Your task to perform on an android device: Add "razer blade" to the cart on newegg, then select checkout. Image 0: 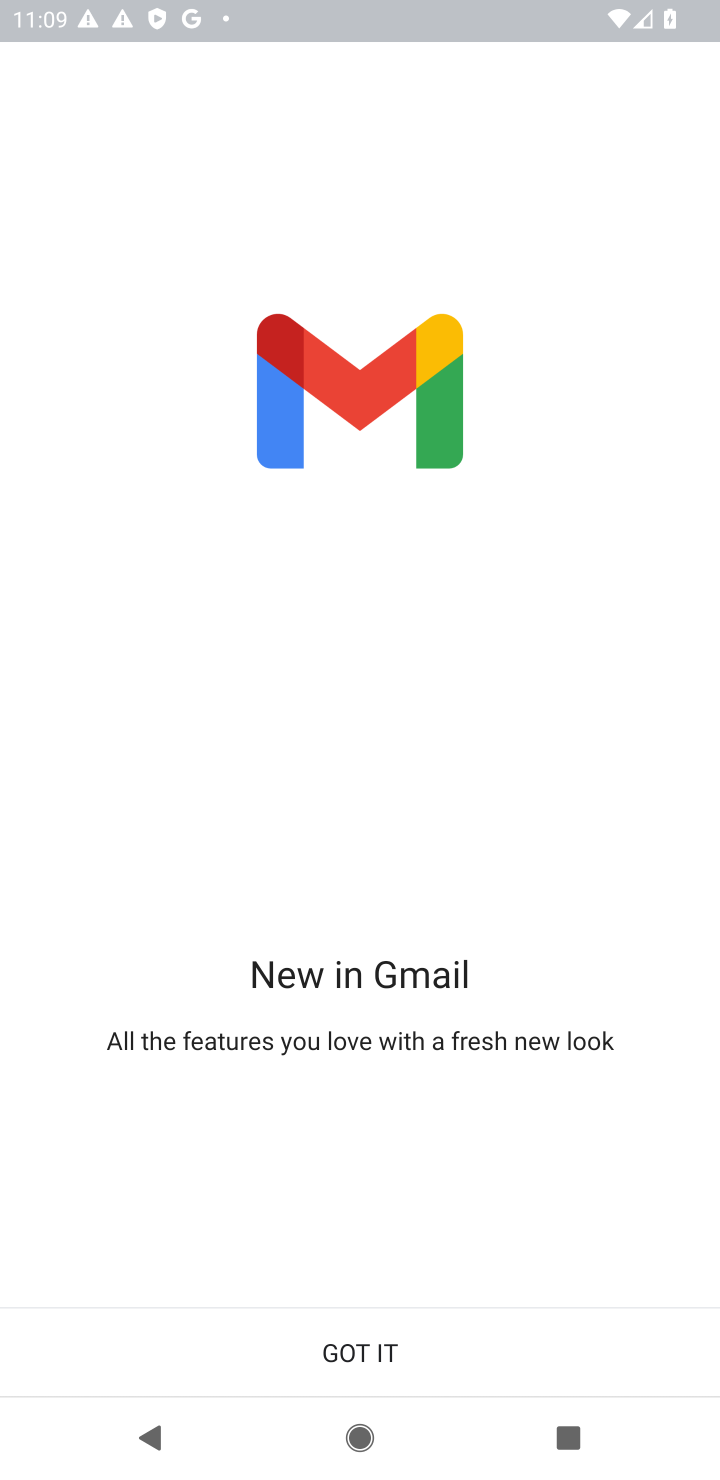
Step 0: press home button
Your task to perform on an android device: Add "razer blade" to the cart on newegg, then select checkout. Image 1: 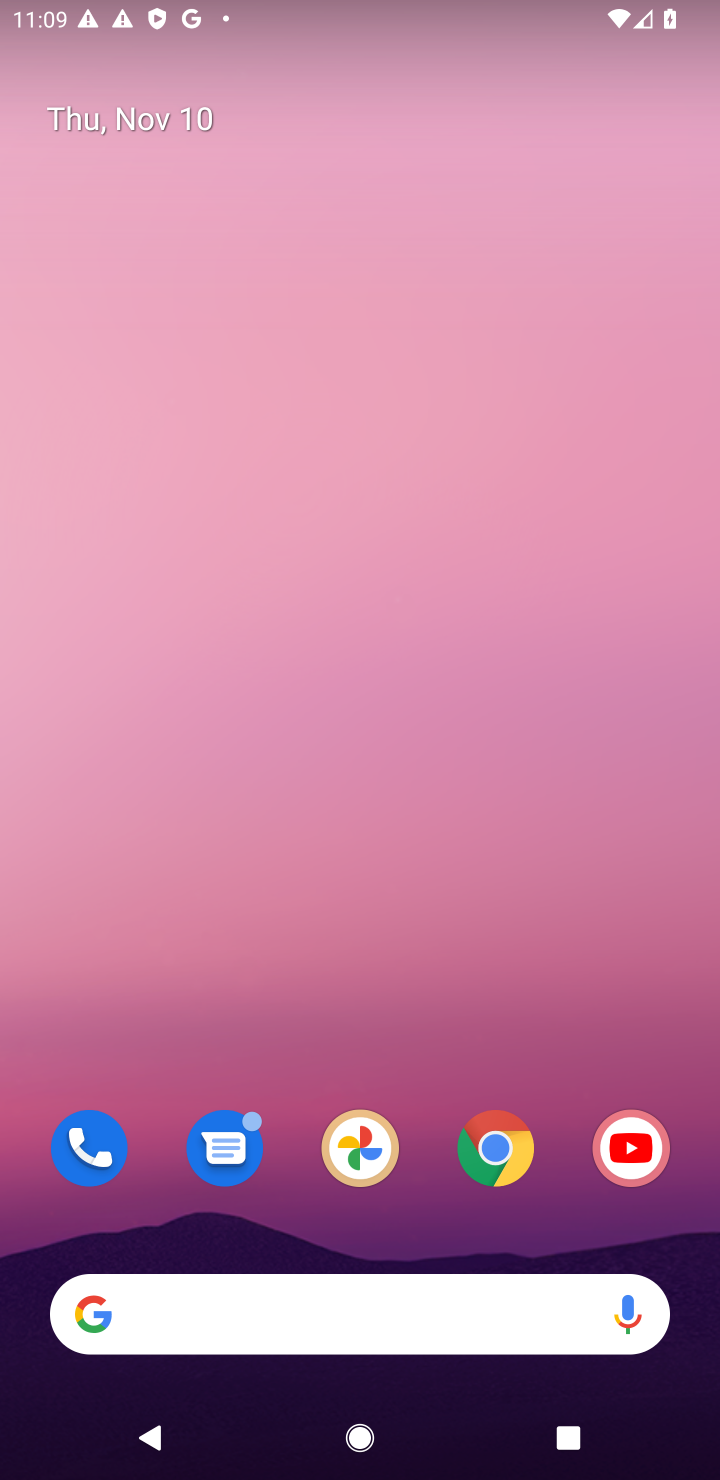
Step 1: click (495, 1112)
Your task to perform on an android device: Add "razer blade" to the cart on newegg, then select checkout. Image 2: 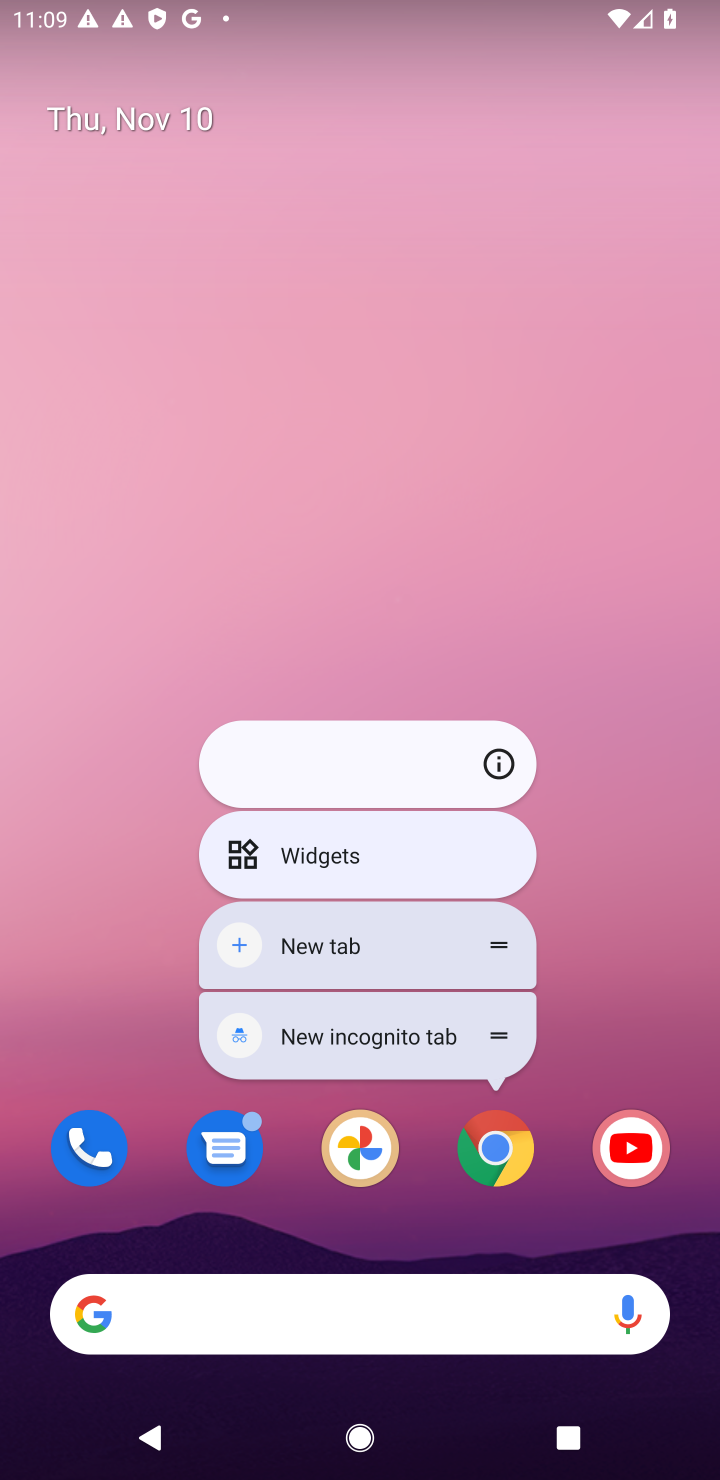
Step 2: click (496, 1149)
Your task to perform on an android device: Add "razer blade" to the cart on newegg, then select checkout. Image 3: 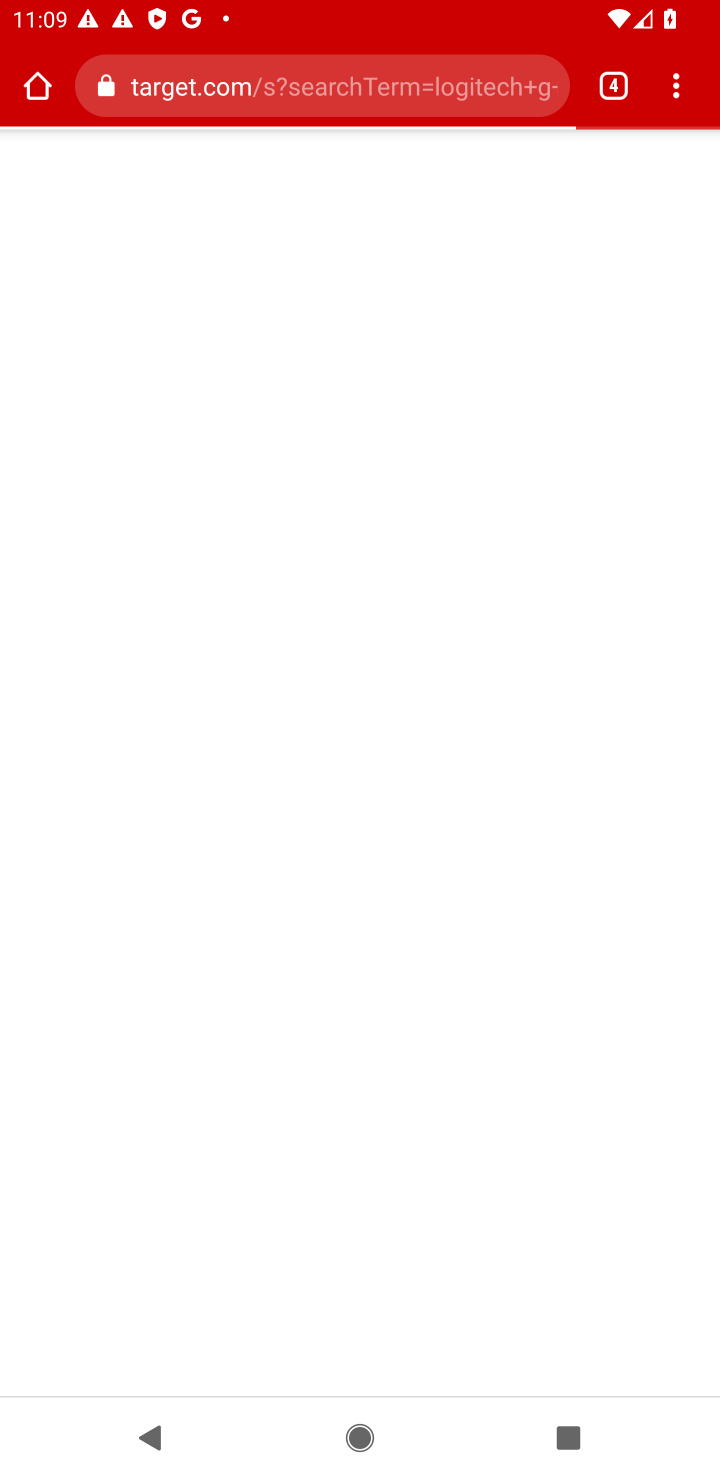
Step 3: click (619, 93)
Your task to perform on an android device: Add "razer blade" to the cart on newegg, then select checkout. Image 4: 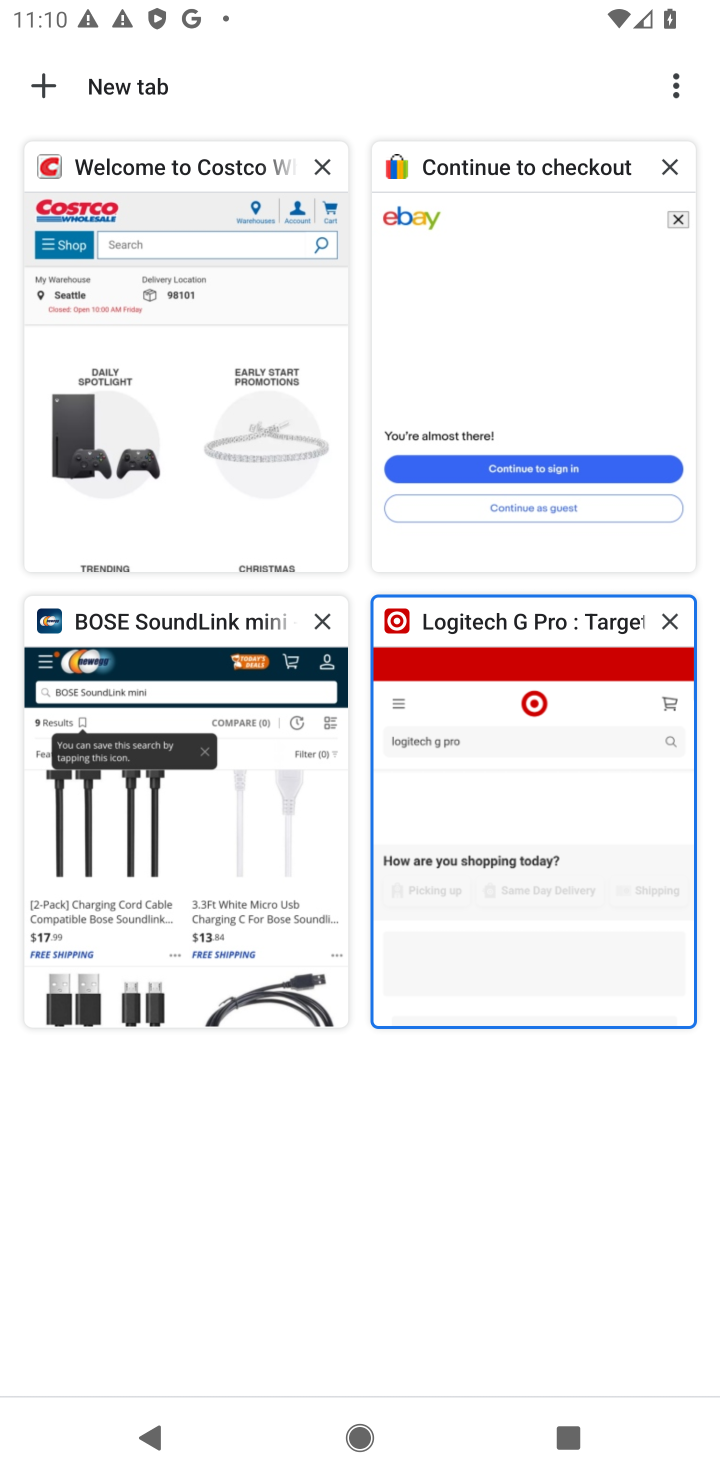
Step 4: click (110, 821)
Your task to perform on an android device: Add "razer blade" to the cart on newegg, then select checkout. Image 5: 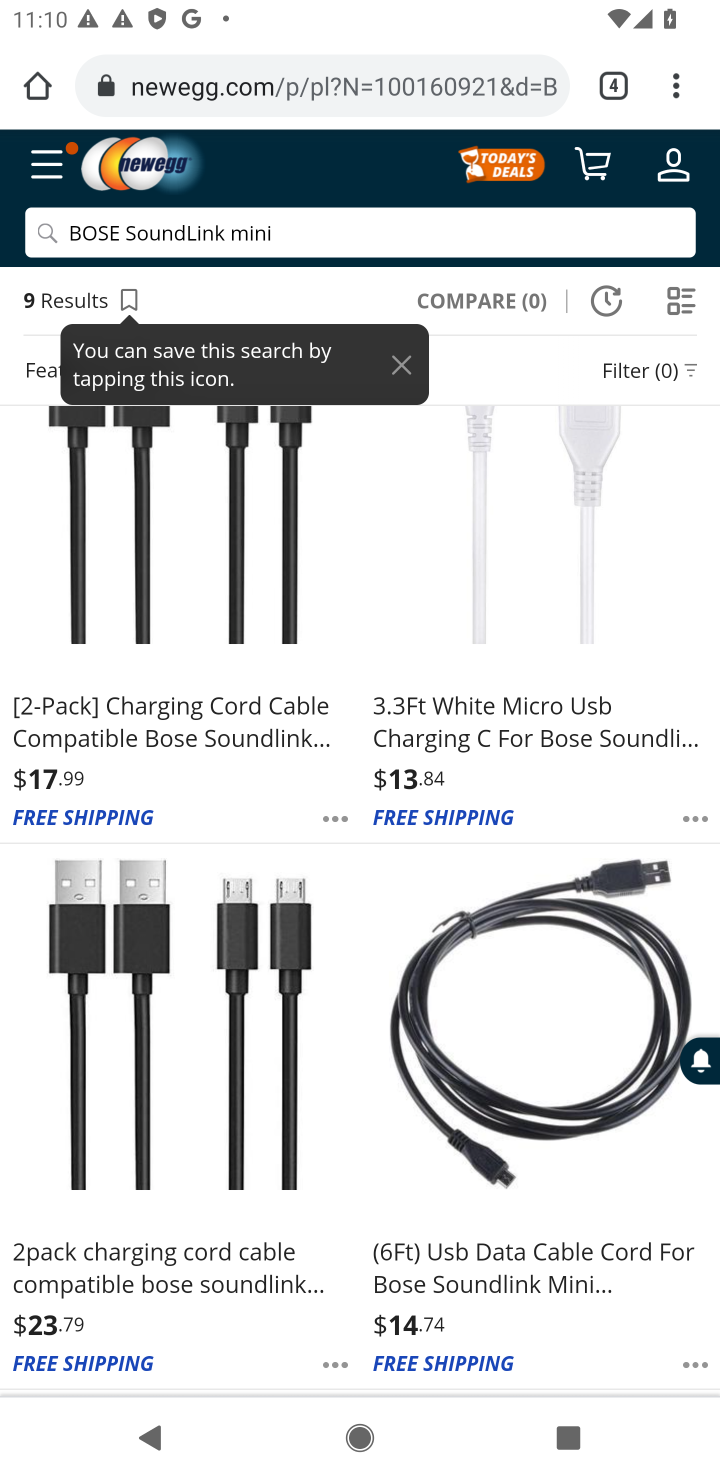
Step 5: click (298, 236)
Your task to perform on an android device: Add "razer blade" to the cart on newegg, then select checkout. Image 6: 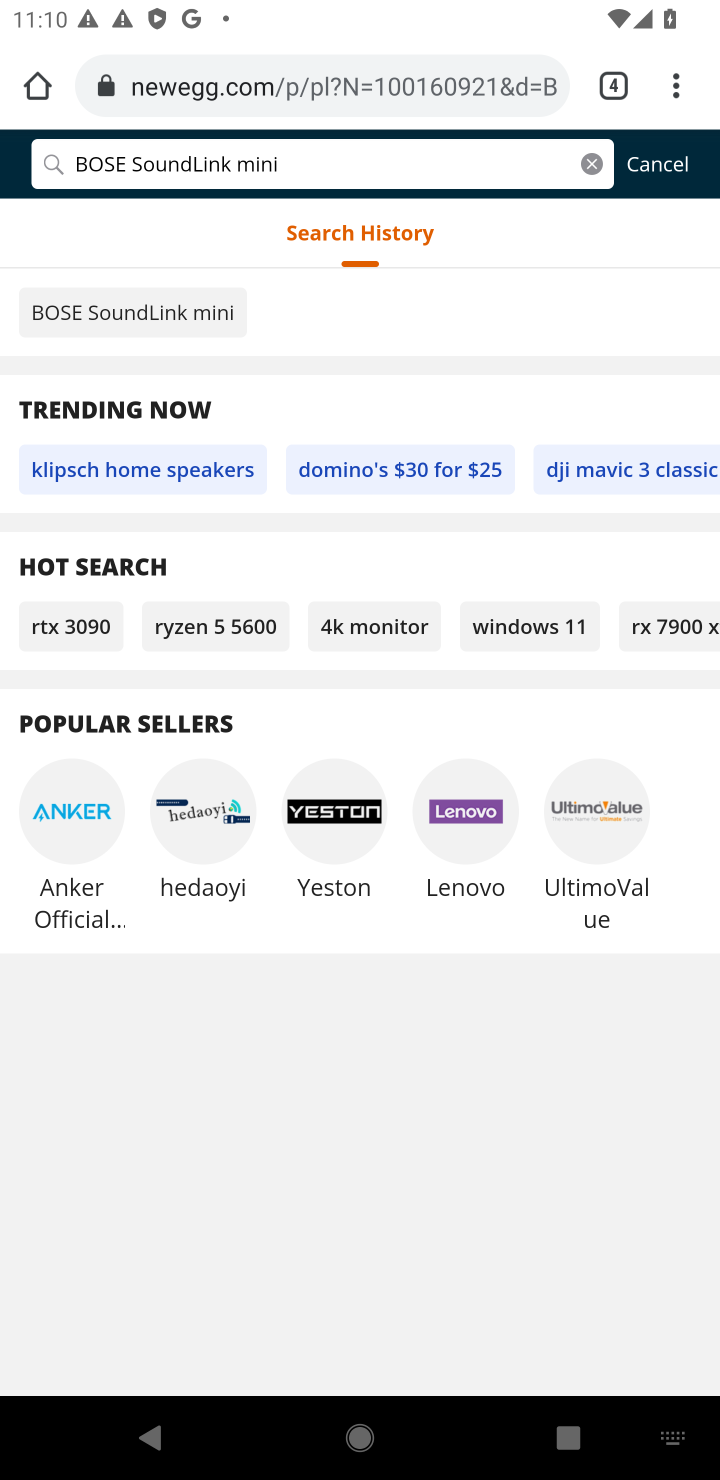
Step 6: click (591, 160)
Your task to perform on an android device: Add "razer blade" to the cart on newegg, then select checkout. Image 7: 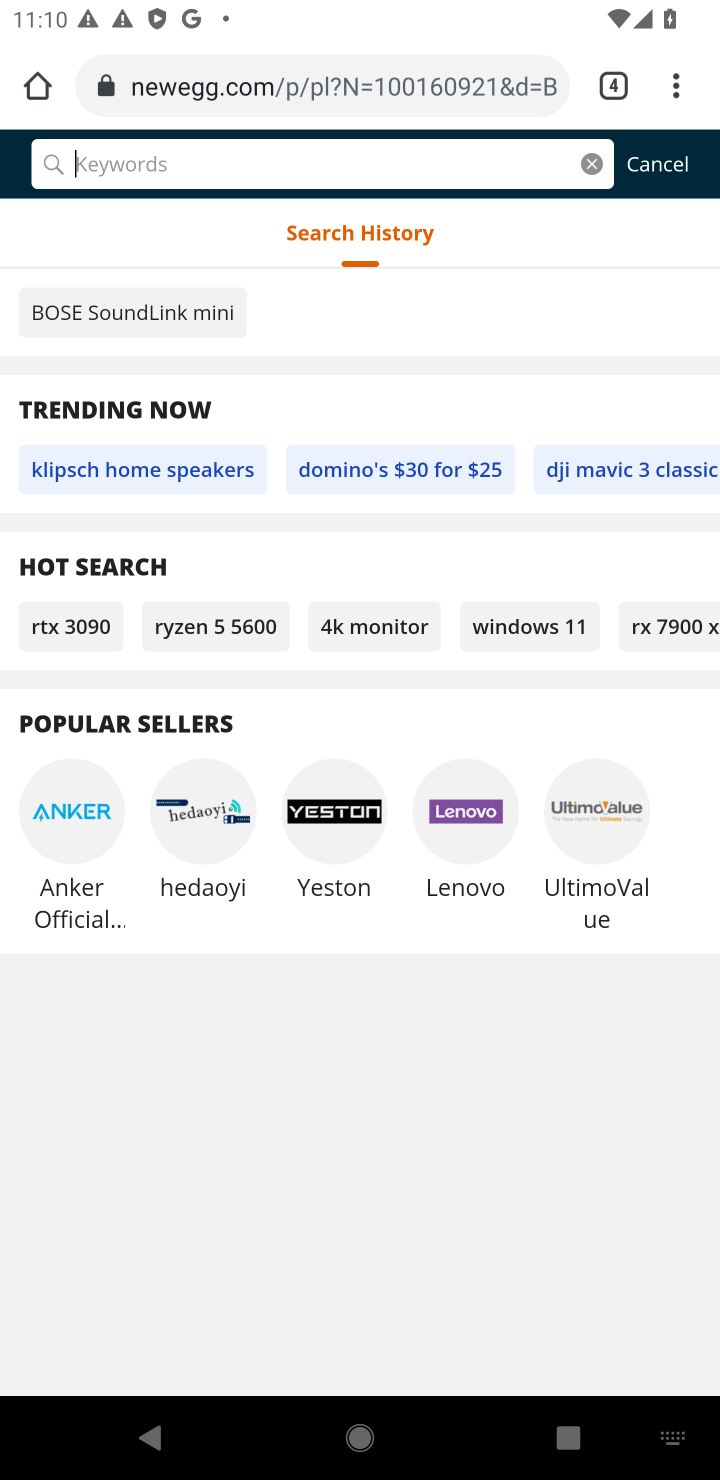
Step 7: type "razer blade"
Your task to perform on an android device: Add "razer blade" to the cart on newegg, then select checkout. Image 8: 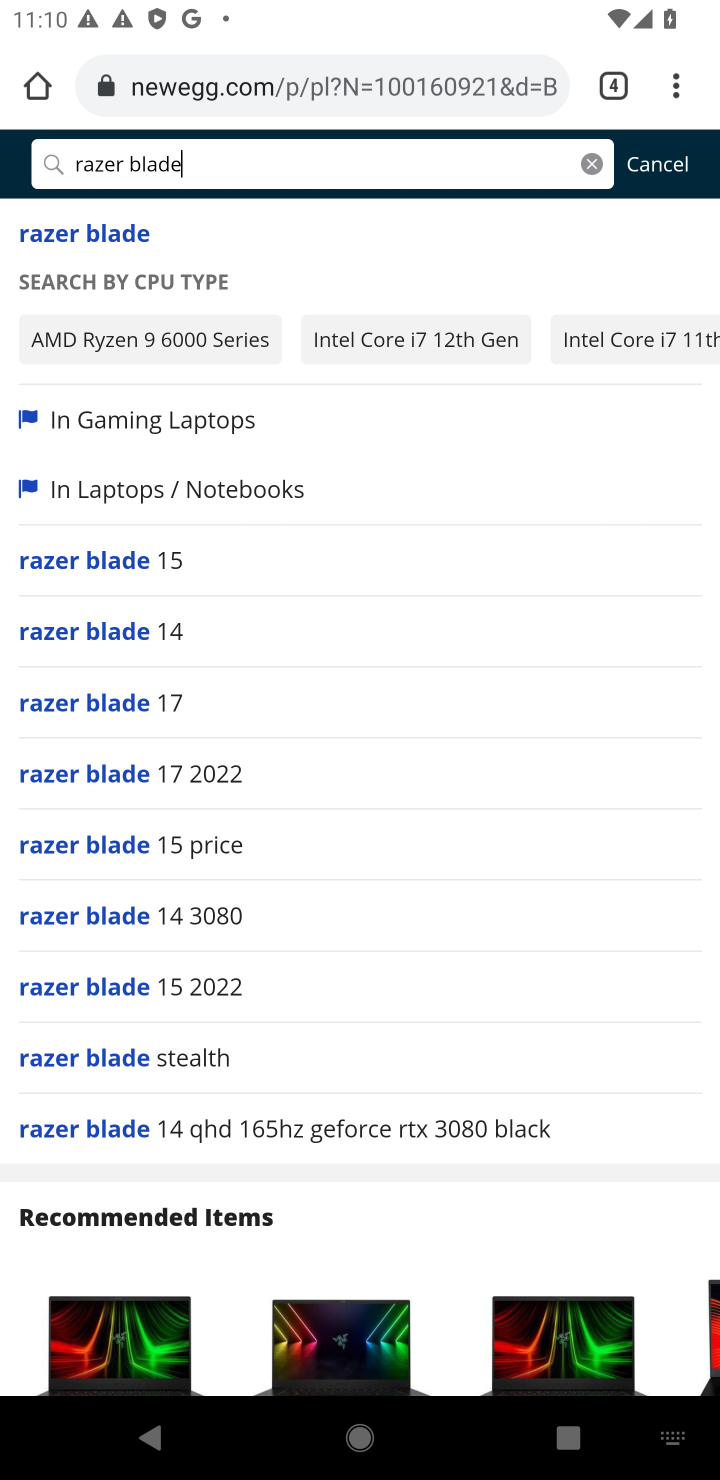
Step 8: click (80, 220)
Your task to perform on an android device: Add "razer blade" to the cart on newegg, then select checkout. Image 9: 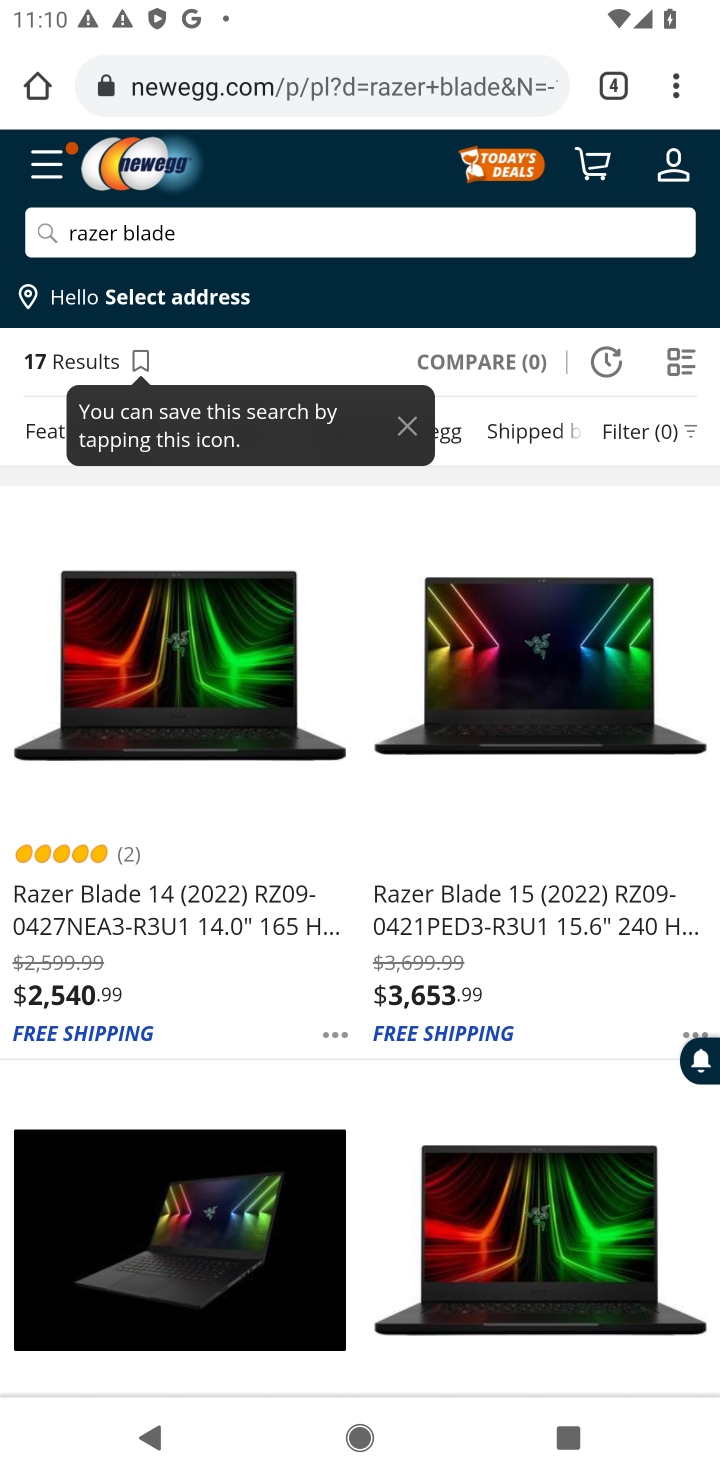
Step 9: click (188, 900)
Your task to perform on an android device: Add "razer blade" to the cart on newegg, then select checkout. Image 10: 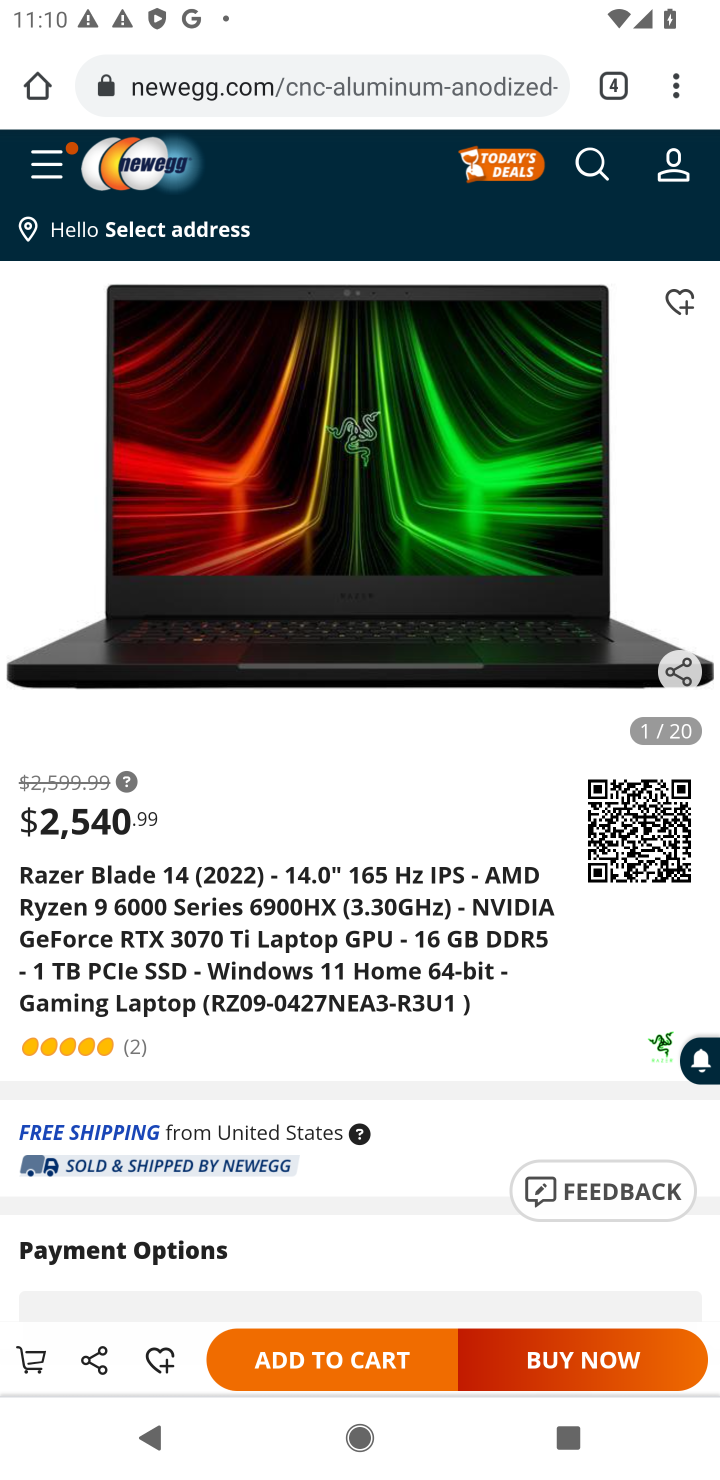
Step 10: click (373, 1354)
Your task to perform on an android device: Add "razer blade" to the cart on newegg, then select checkout. Image 11: 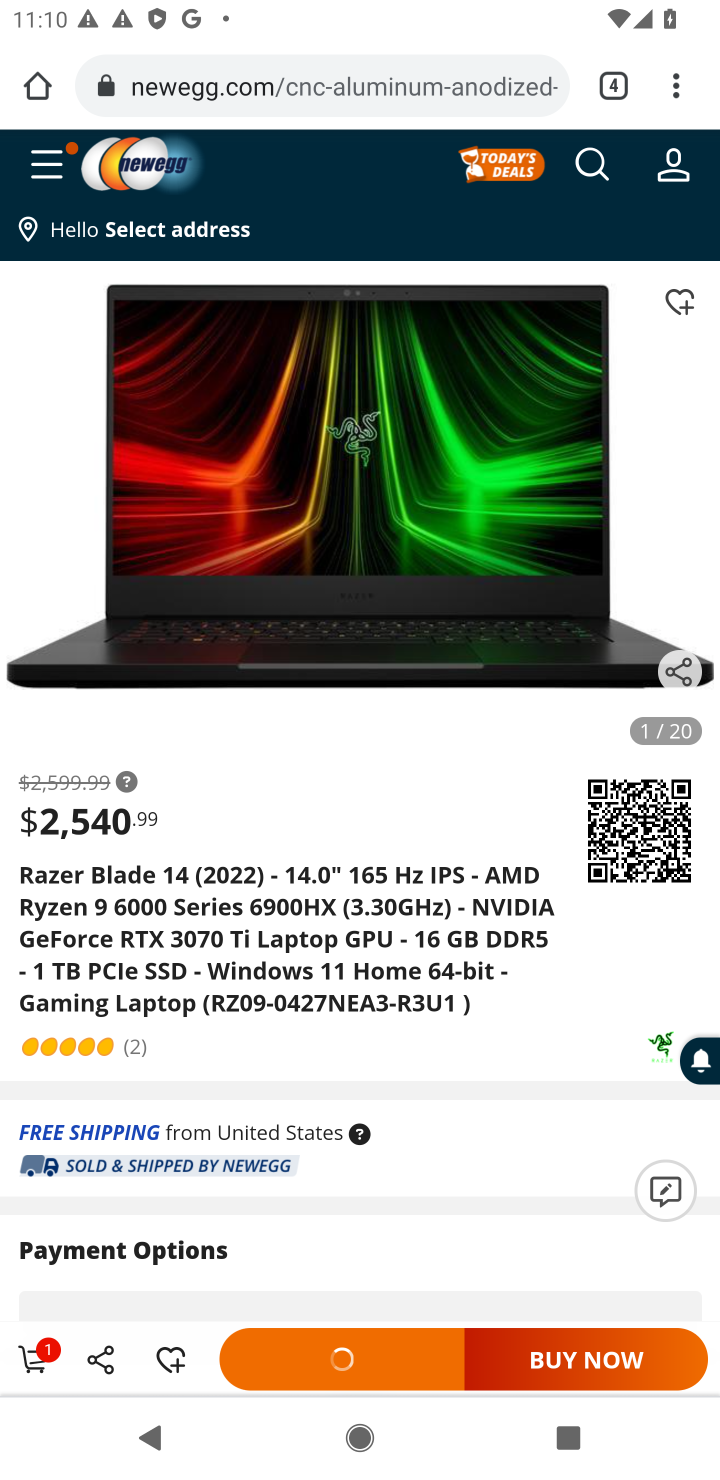
Step 11: click (35, 1355)
Your task to perform on an android device: Add "razer blade" to the cart on newegg, then select checkout. Image 12: 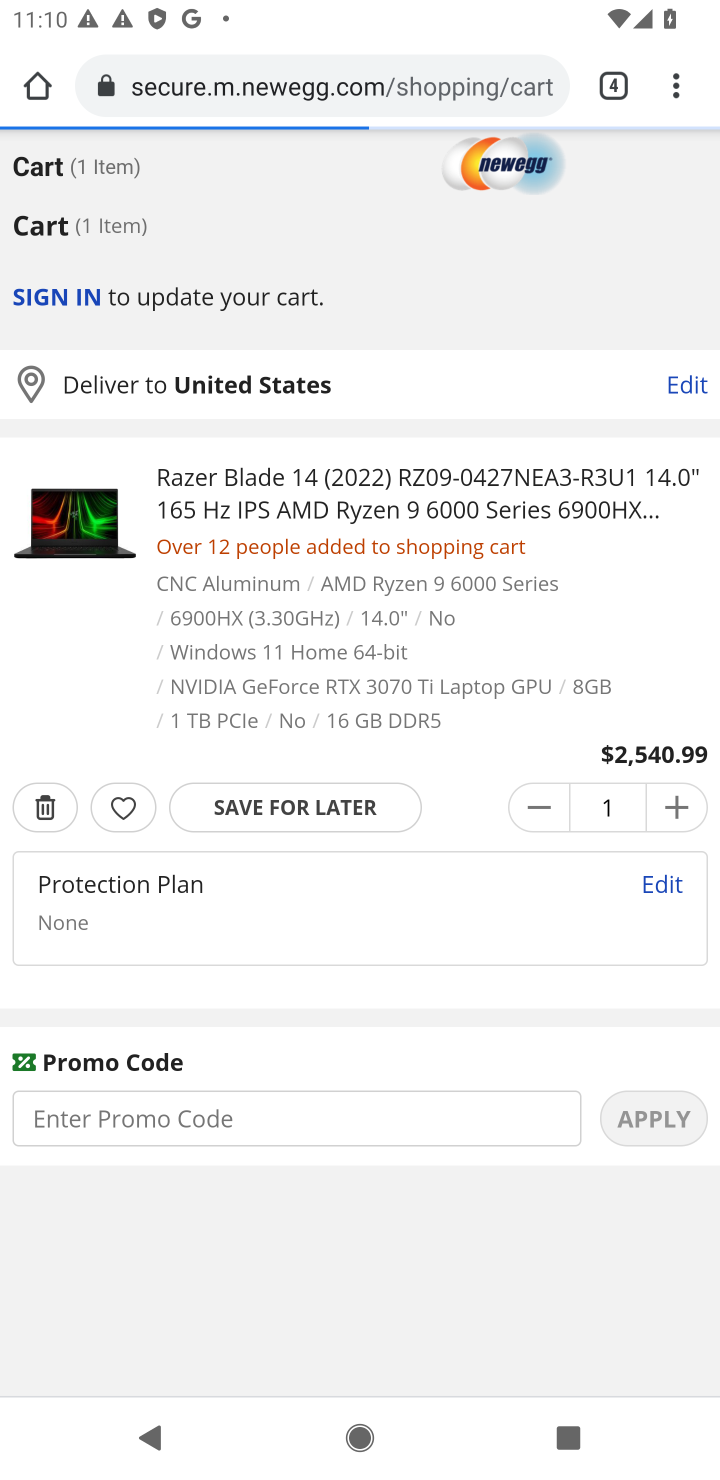
Step 12: click (34, 1351)
Your task to perform on an android device: Add "razer blade" to the cart on newegg, then select checkout. Image 13: 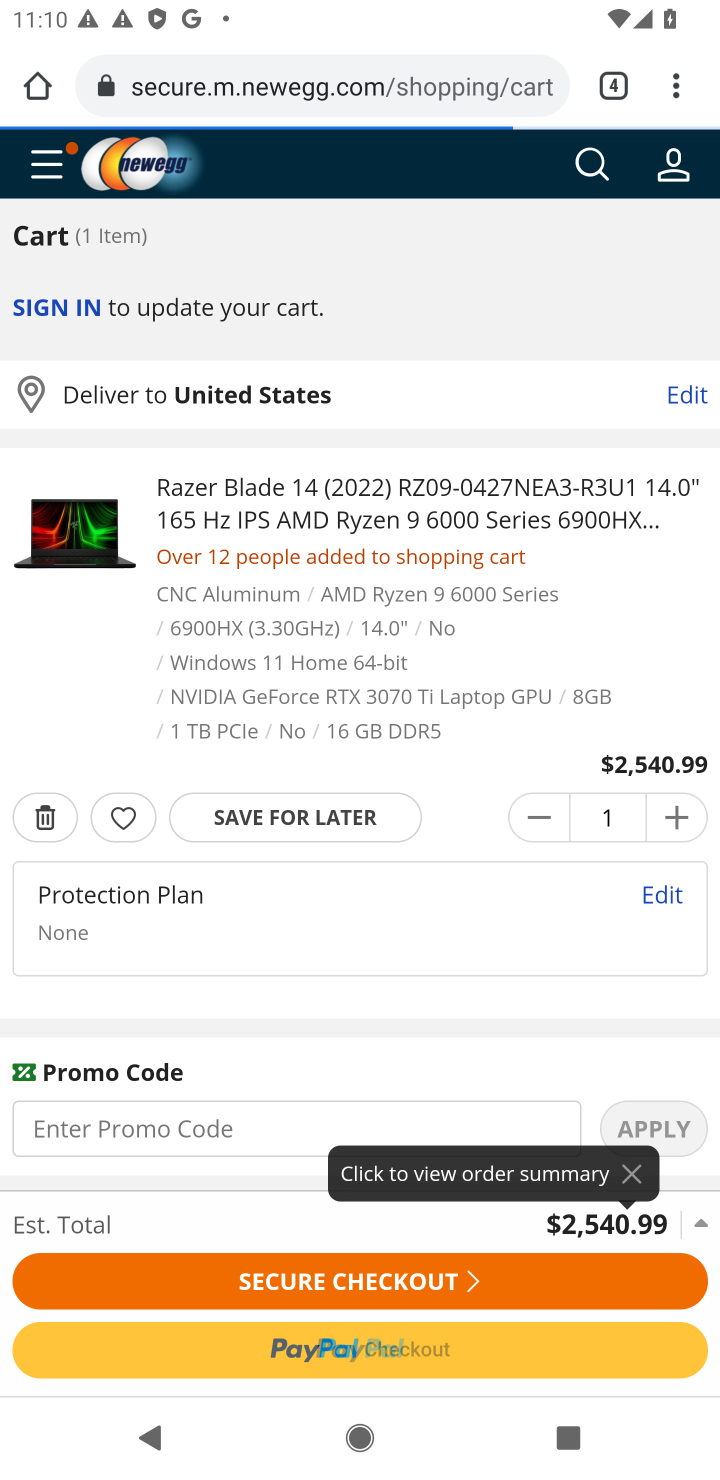
Step 13: click (365, 1289)
Your task to perform on an android device: Add "razer blade" to the cart on newegg, then select checkout. Image 14: 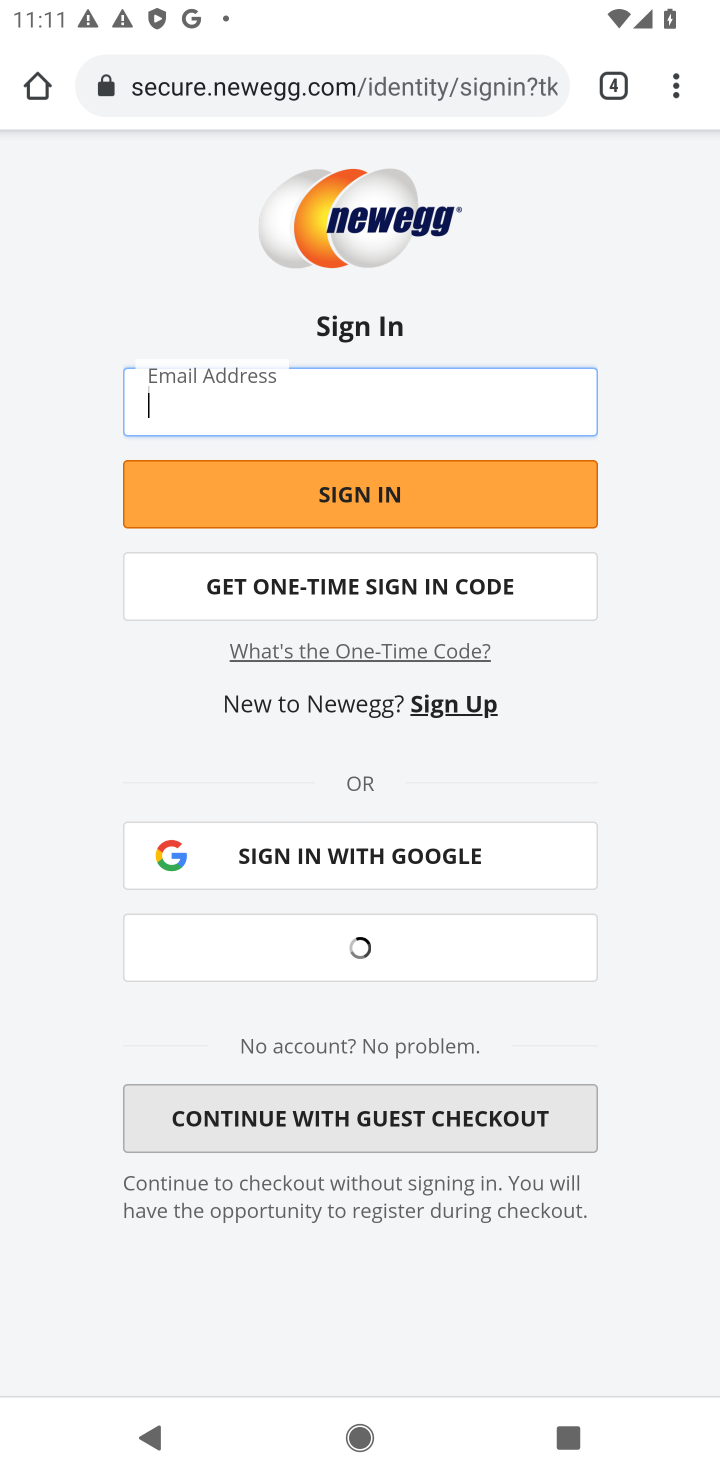
Step 14: task complete